Your task to perform on an android device: open chrome privacy settings Image 0: 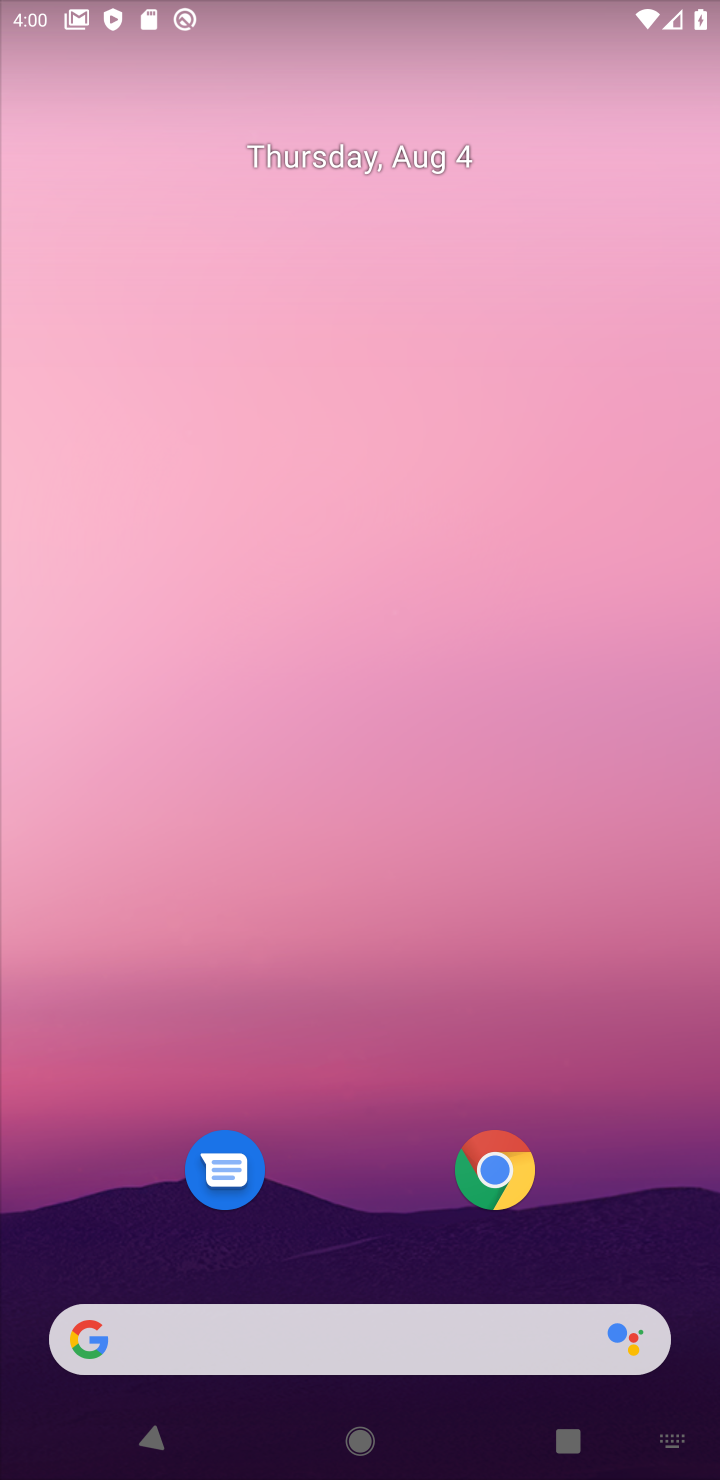
Step 0: click (485, 1175)
Your task to perform on an android device: open chrome privacy settings Image 1: 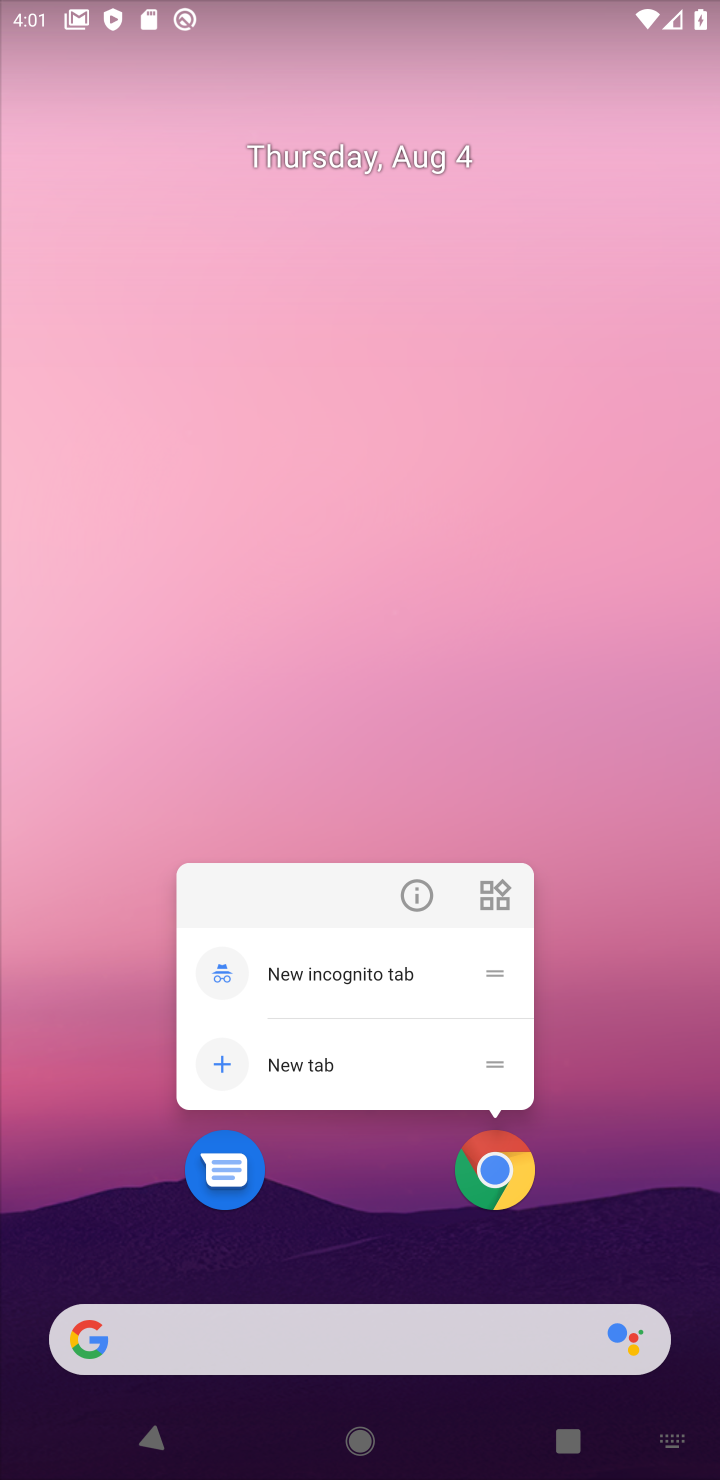
Step 1: click (485, 1175)
Your task to perform on an android device: open chrome privacy settings Image 2: 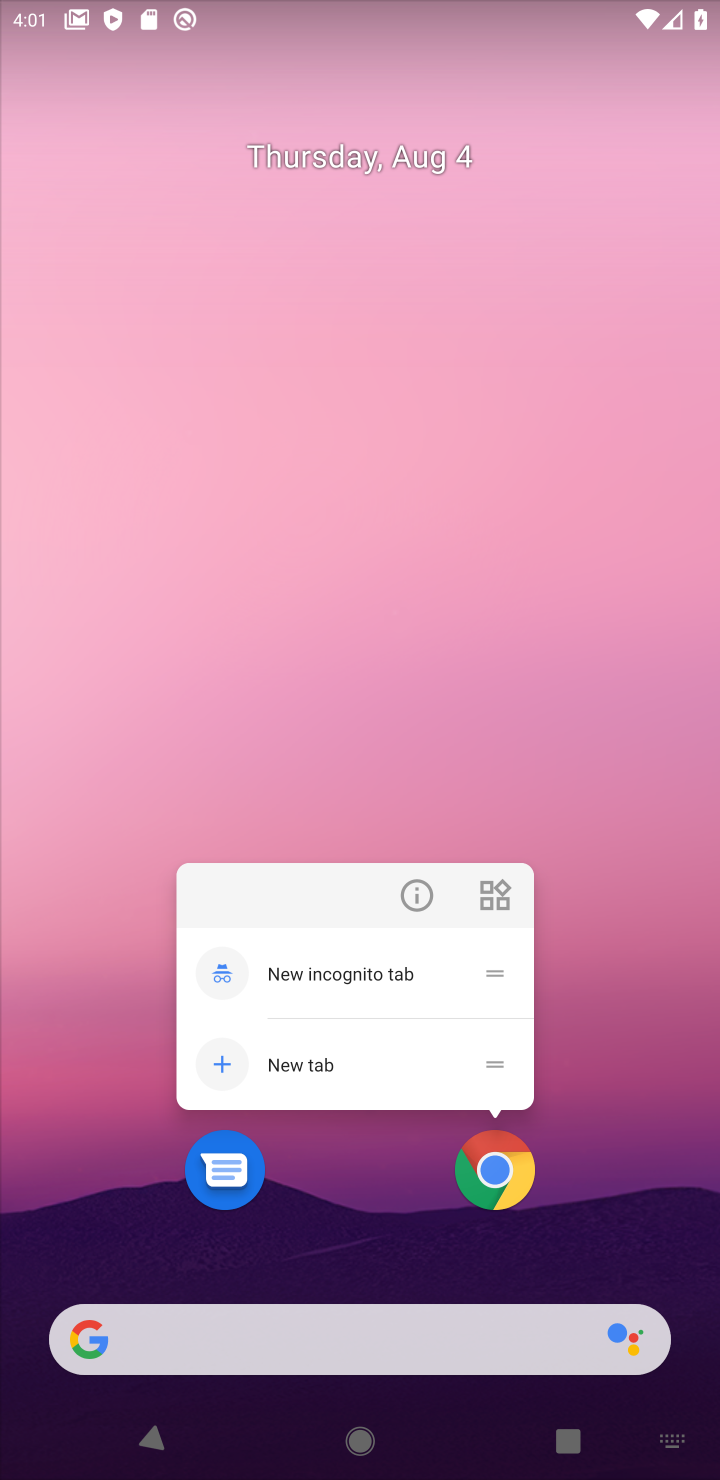
Step 2: click (495, 1183)
Your task to perform on an android device: open chrome privacy settings Image 3: 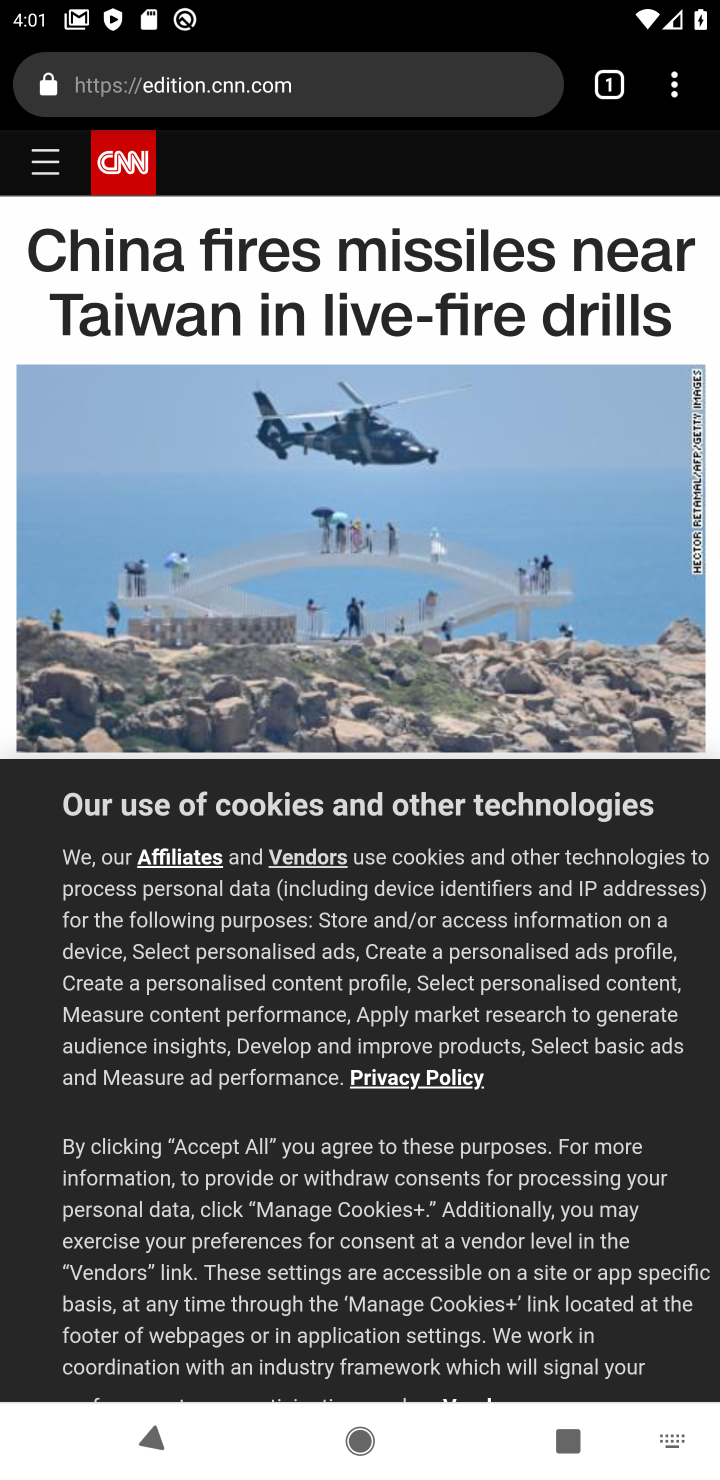
Step 3: click (678, 72)
Your task to perform on an android device: open chrome privacy settings Image 4: 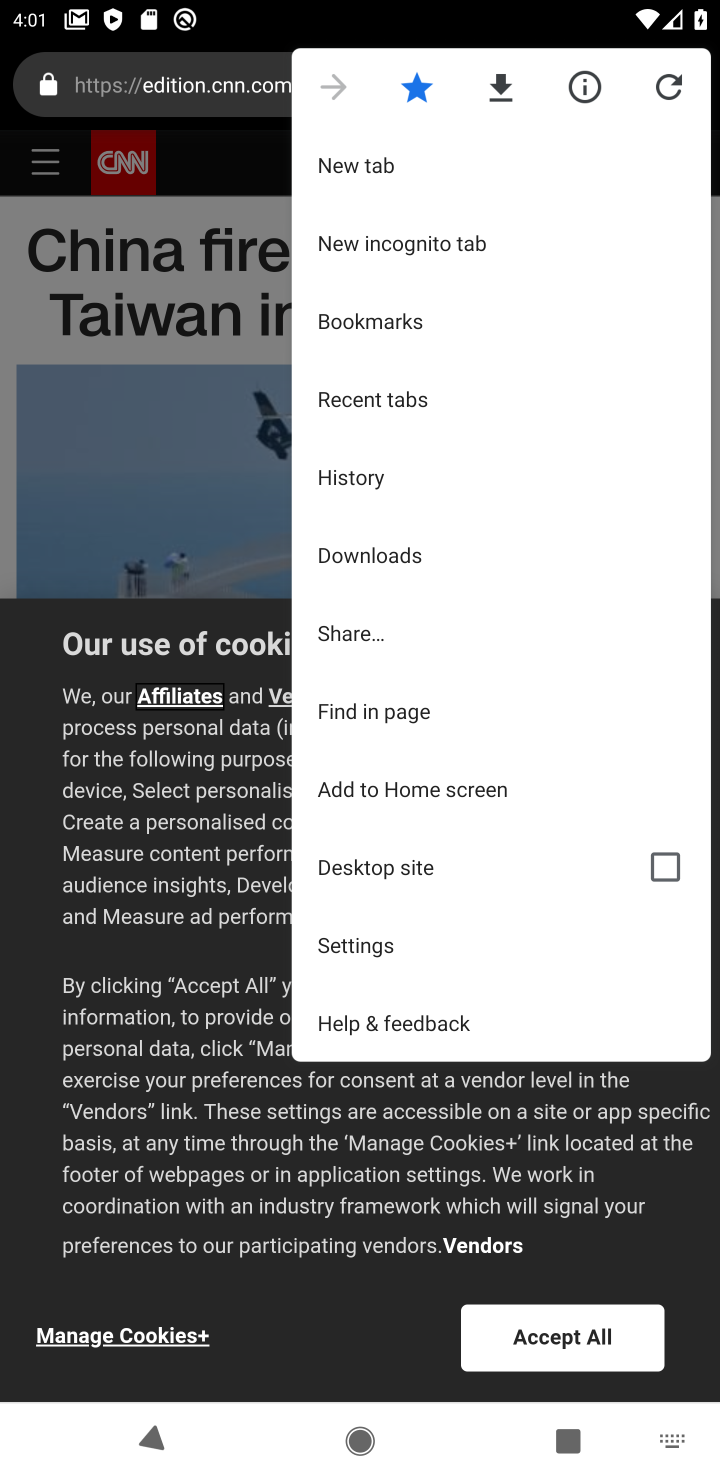
Step 4: click (418, 932)
Your task to perform on an android device: open chrome privacy settings Image 5: 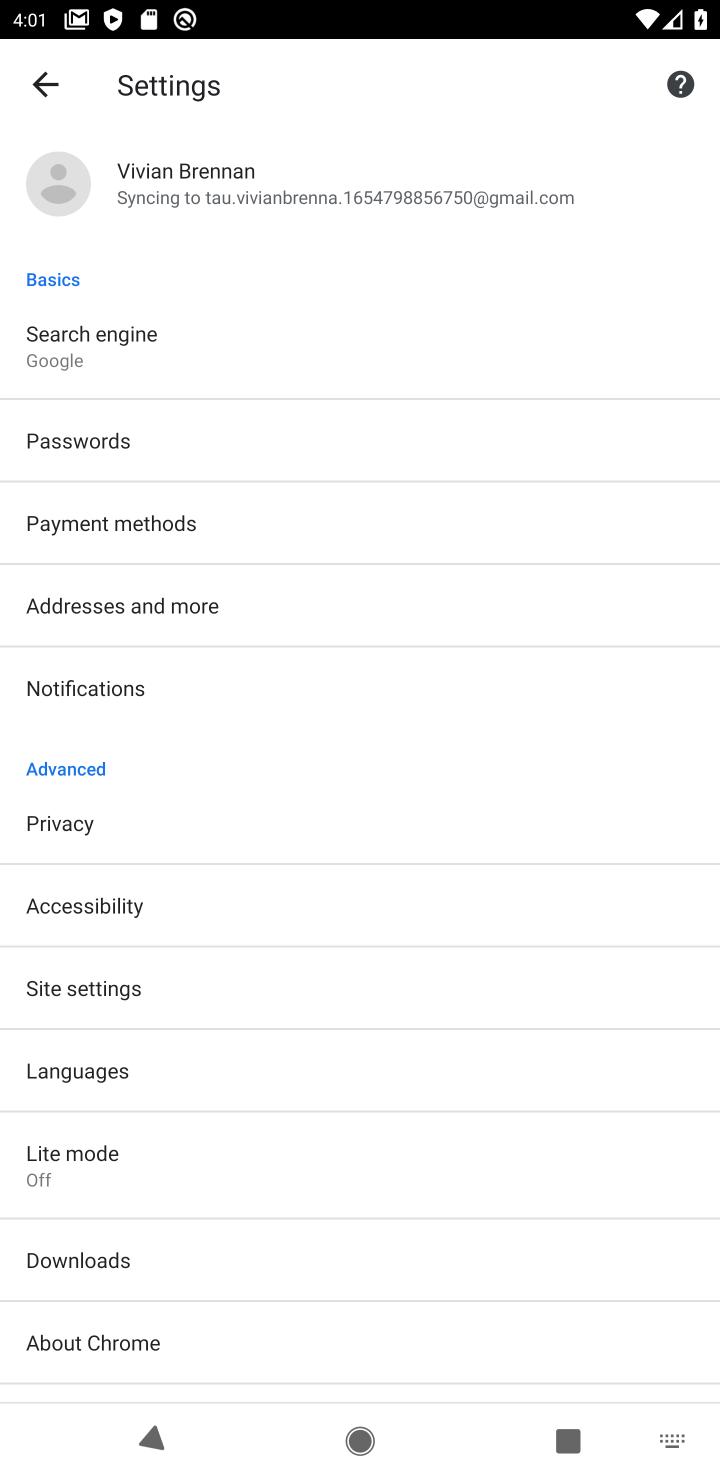
Step 5: click (147, 820)
Your task to perform on an android device: open chrome privacy settings Image 6: 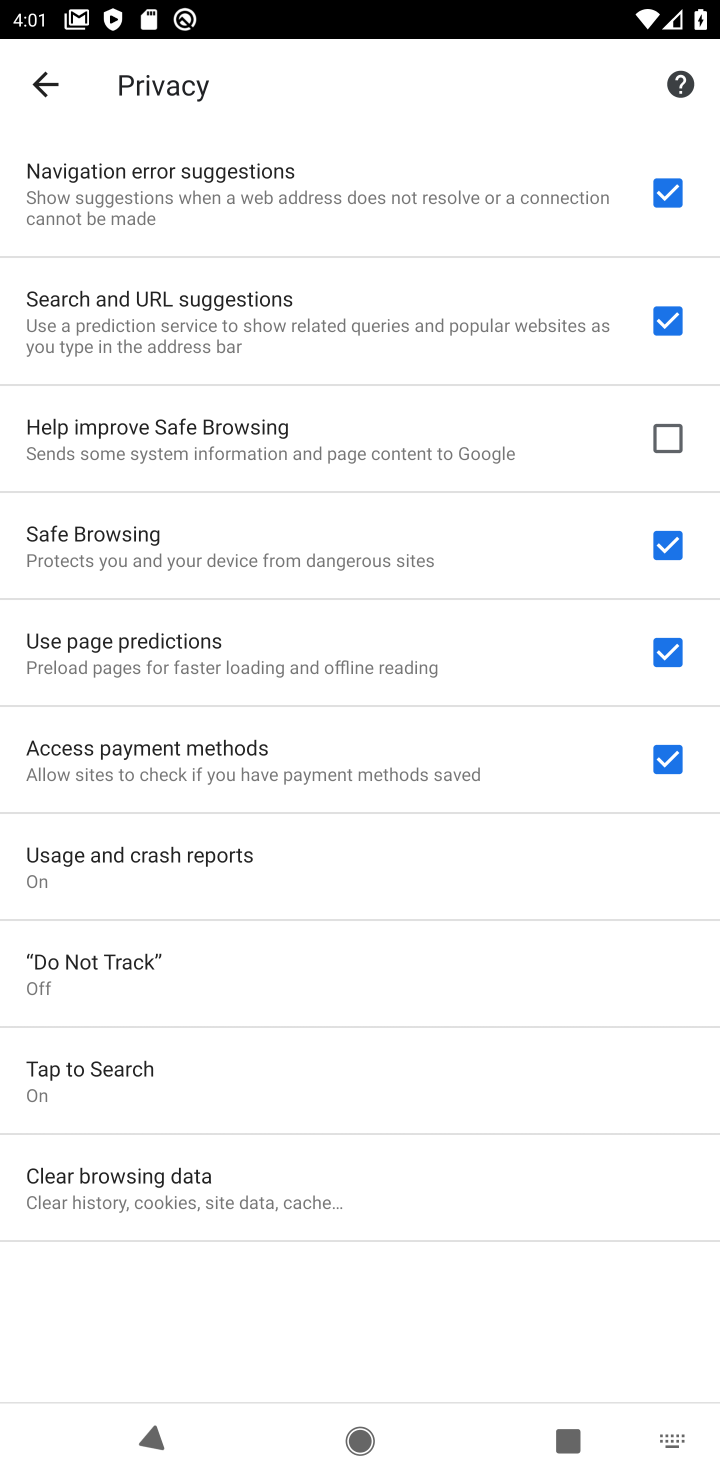
Step 6: task complete